Your task to perform on an android device: Open sound settings Image 0: 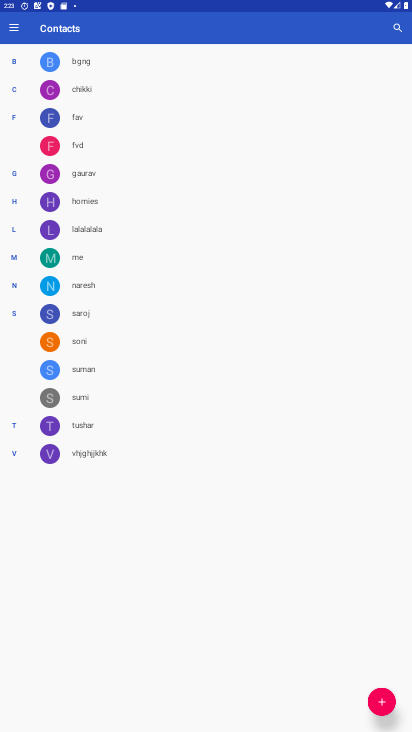
Step 0: press home button
Your task to perform on an android device: Open sound settings Image 1: 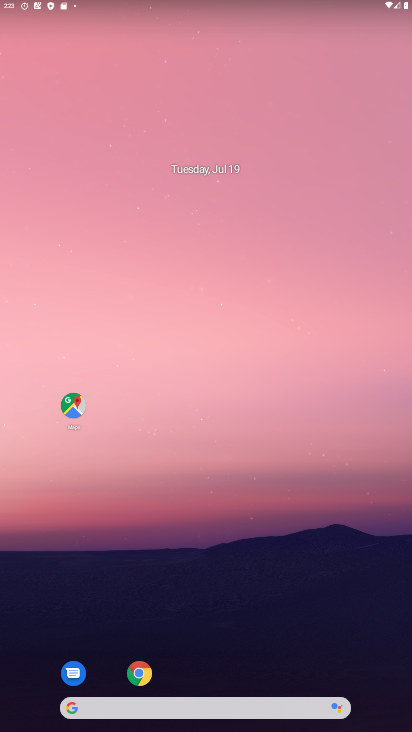
Step 1: drag from (231, 590) to (248, 35)
Your task to perform on an android device: Open sound settings Image 2: 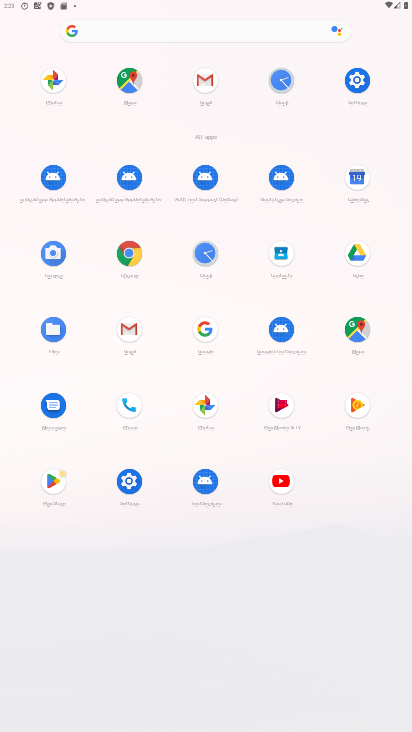
Step 2: click (126, 486)
Your task to perform on an android device: Open sound settings Image 3: 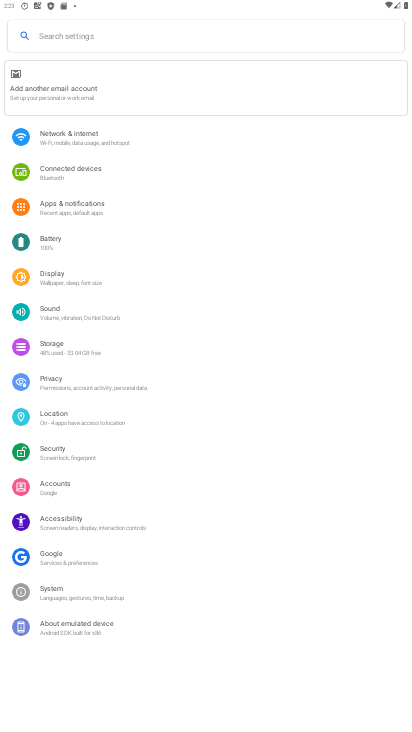
Step 3: click (81, 315)
Your task to perform on an android device: Open sound settings Image 4: 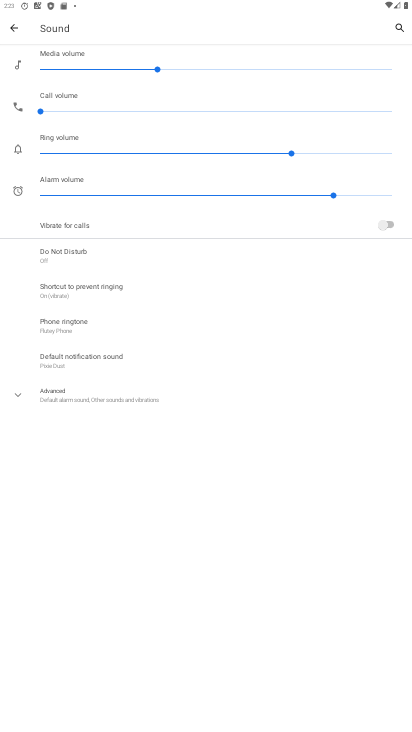
Step 4: task complete